Your task to perform on an android device: change keyboard looks Image 0: 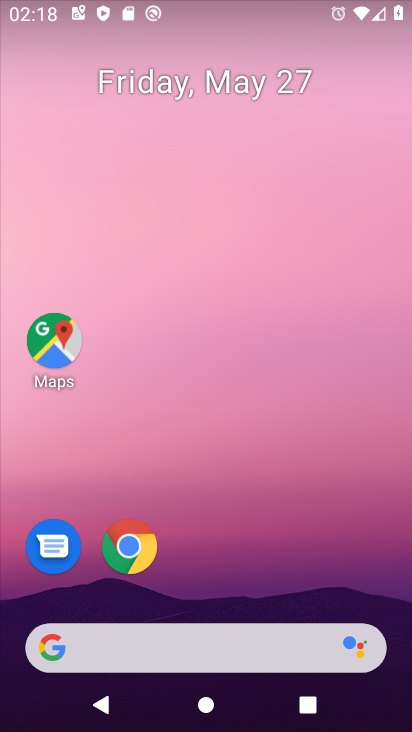
Step 0: press home button
Your task to perform on an android device: change keyboard looks Image 1: 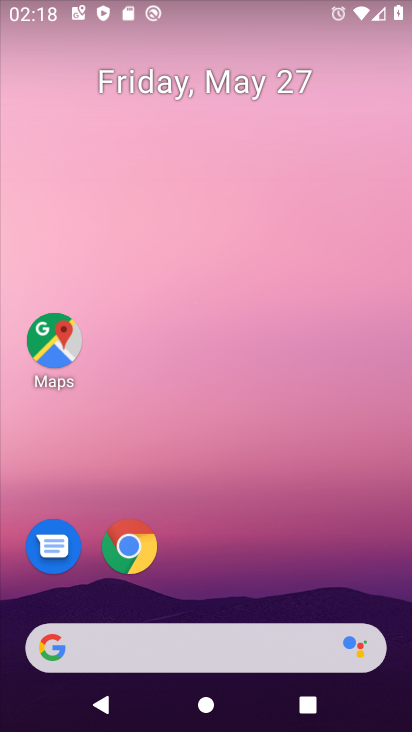
Step 1: drag from (186, 654) to (330, 7)
Your task to perform on an android device: change keyboard looks Image 2: 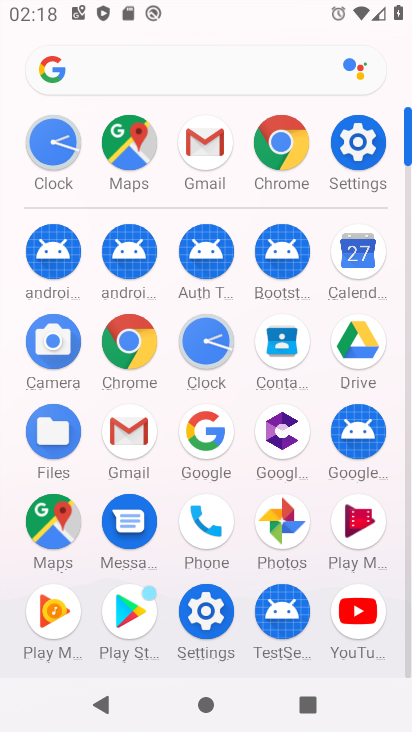
Step 2: click (342, 152)
Your task to perform on an android device: change keyboard looks Image 3: 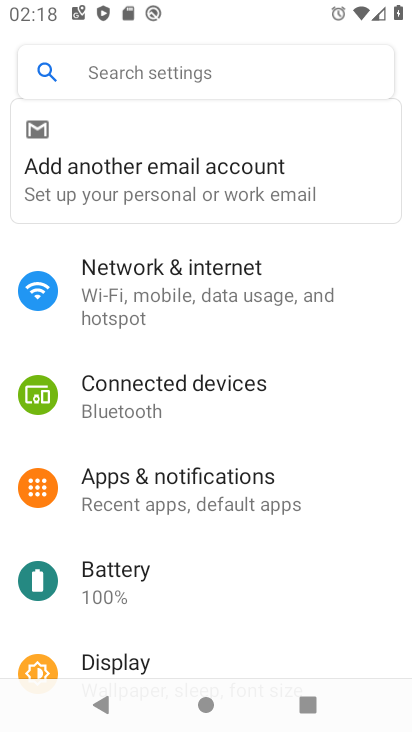
Step 3: click (123, 75)
Your task to perform on an android device: change keyboard looks Image 4: 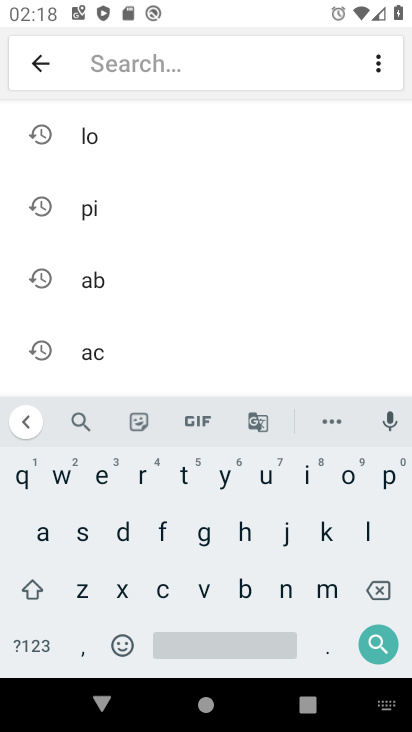
Step 4: click (323, 525)
Your task to perform on an android device: change keyboard looks Image 5: 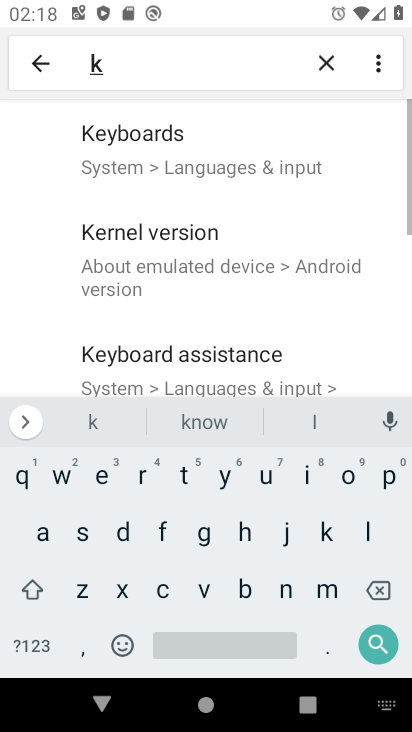
Step 5: click (92, 476)
Your task to perform on an android device: change keyboard looks Image 6: 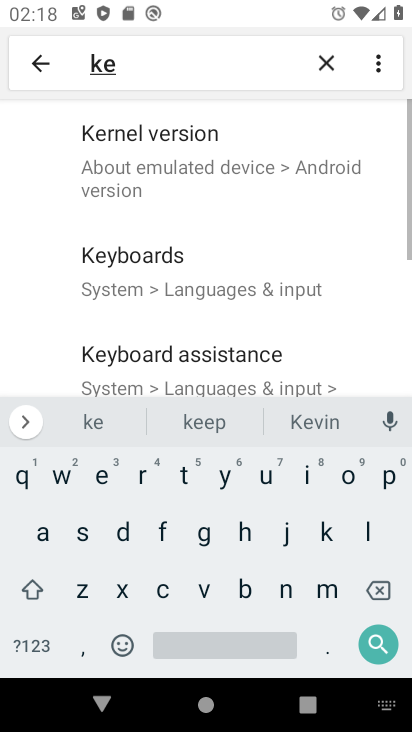
Step 6: click (226, 481)
Your task to perform on an android device: change keyboard looks Image 7: 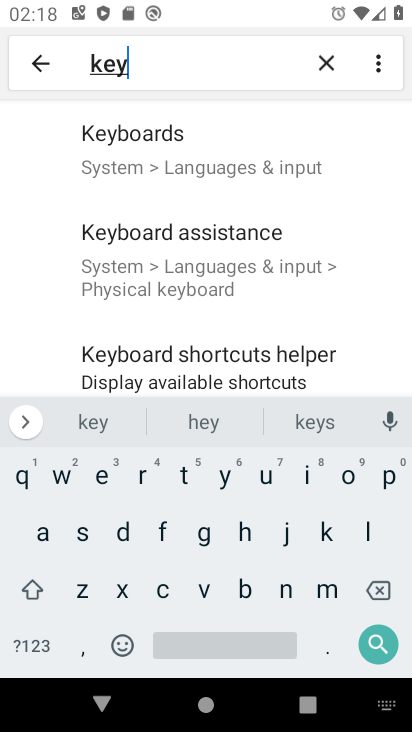
Step 7: click (140, 155)
Your task to perform on an android device: change keyboard looks Image 8: 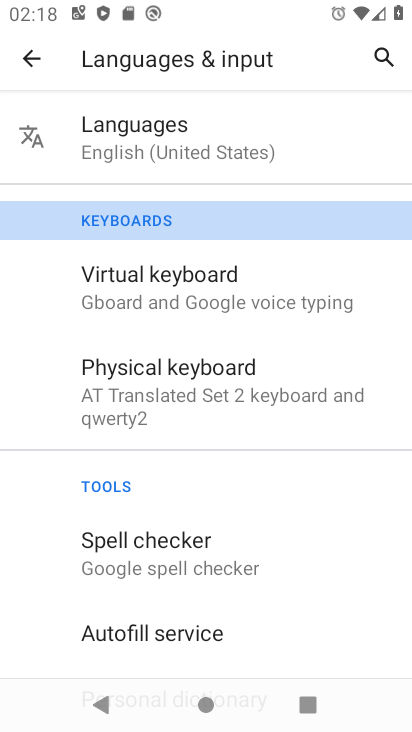
Step 8: click (139, 307)
Your task to perform on an android device: change keyboard looks Image 9: 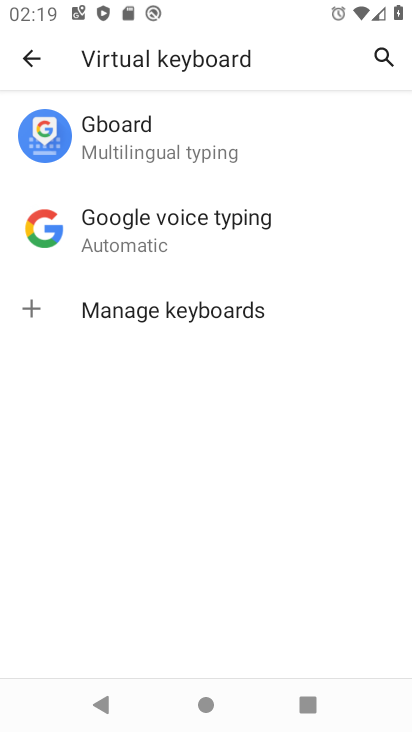
Step 9: click (161, 155)
Your task to perform on an android device: change keyboard looks Image 10: 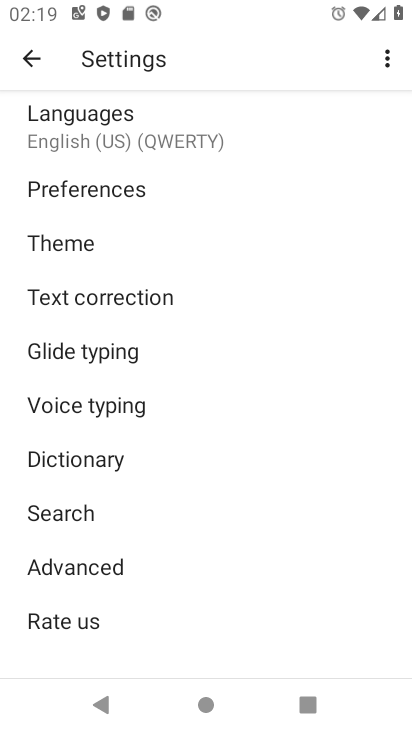
Step 10: click (104, 262)
Your task to perform on an android device: change keyboard looks Image 11: 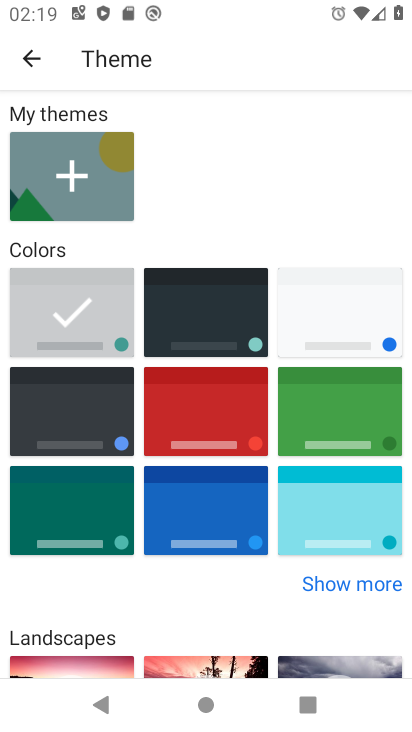
Step 11: click (78, 443)
Your task to perform on an android device: change keyboard looks Image 12: 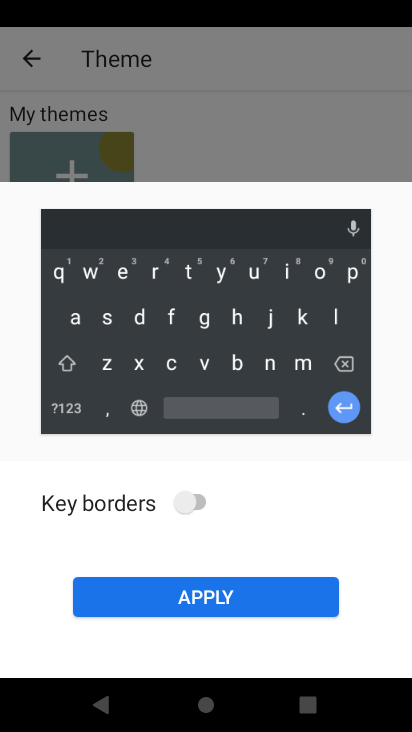
Step 12: click (195, 506)
Your task to perform on an android device: change keyboard looks Image 13: 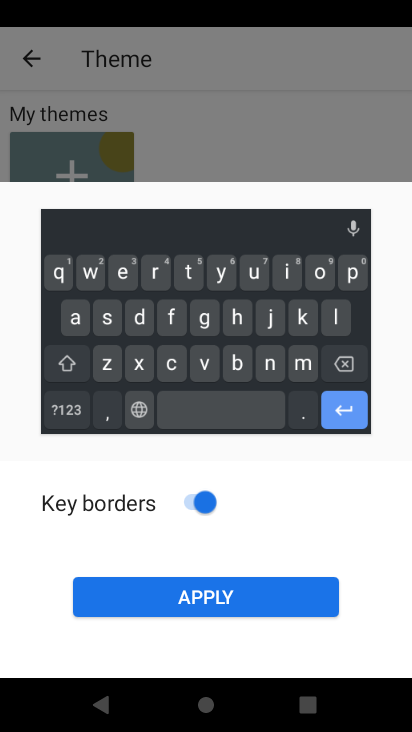
Step 13: click (237, 597)
Your task to perform on an android device: change keyboard looks Image 14: 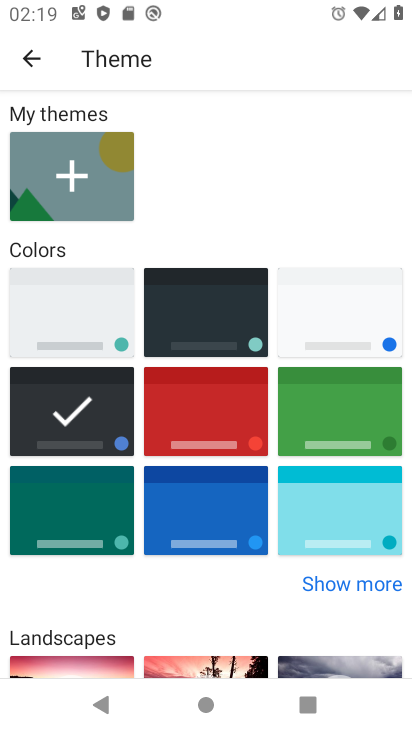
Step 14: task complete